Your task to perform on an android device: make emails show in primary in the gmail app Image 0: 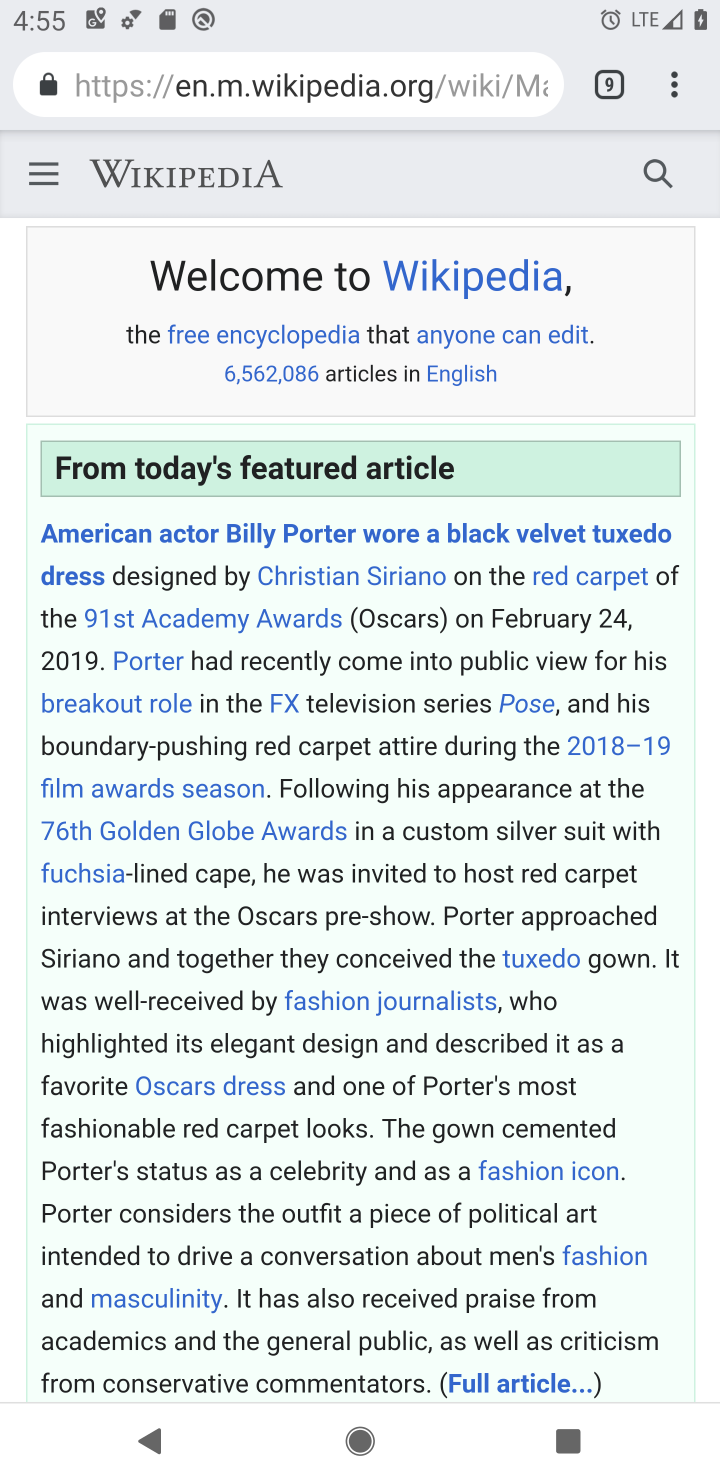
Step 0: press home button
Your task to perform on an android device: make emails show in primary in the gmail app Image 1: 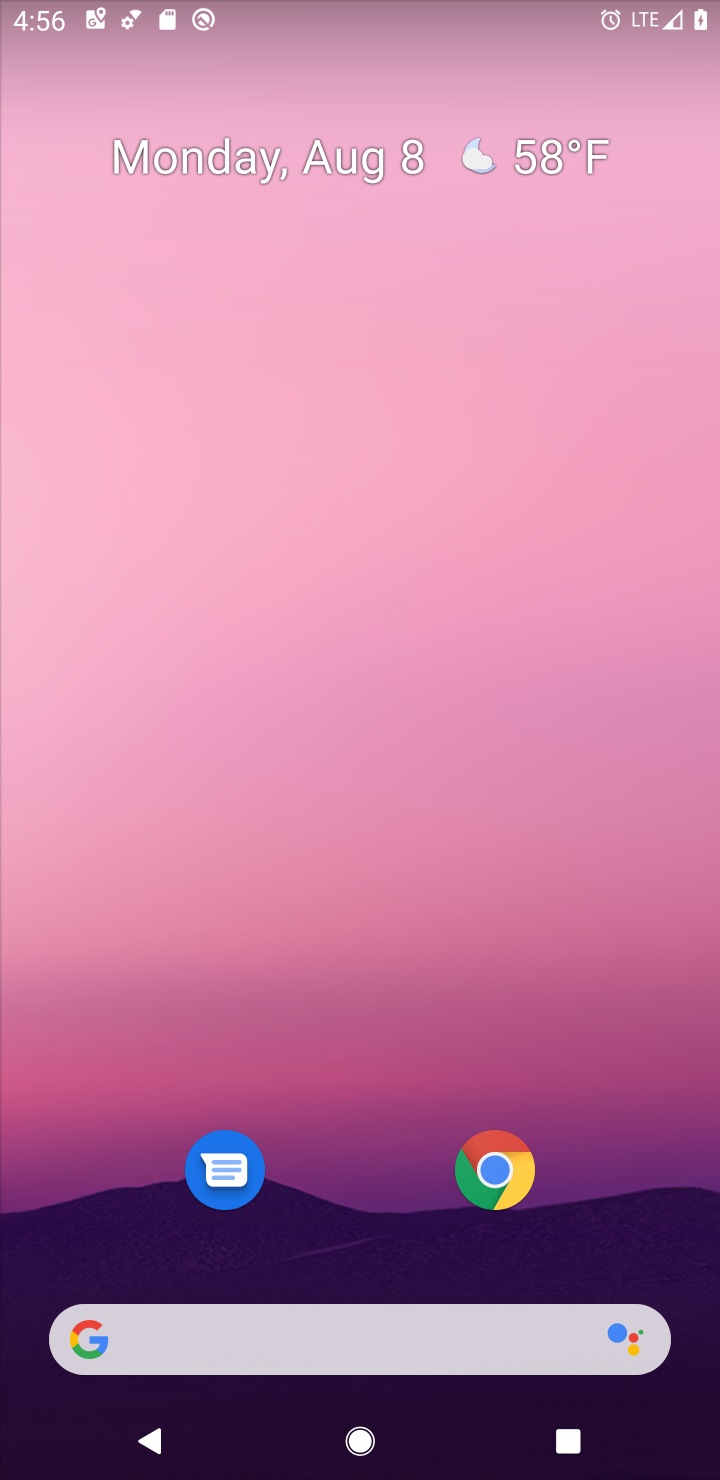
Step 1: drag from (366, 702) to (366, 361)
Your task to perform on an android device: make emails show in primary in the gmail app Image 2: 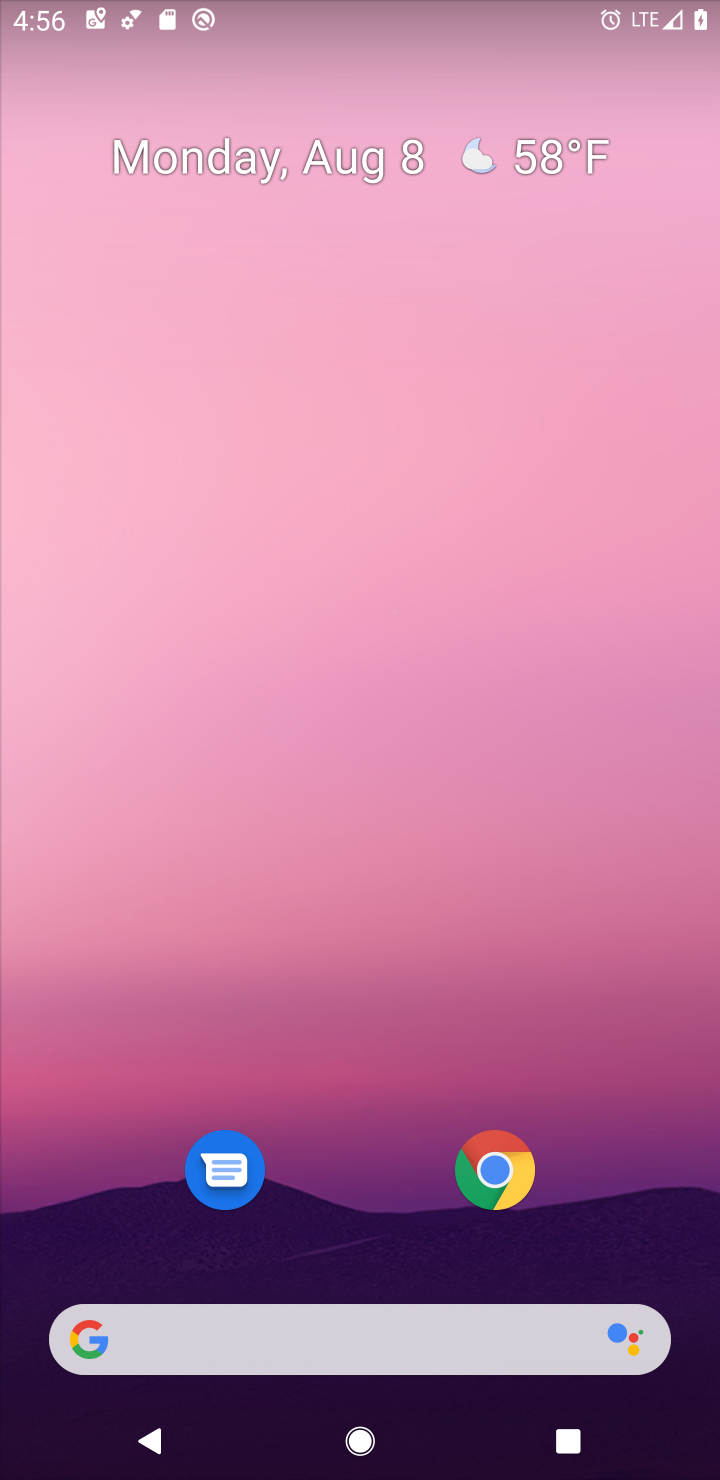
Step 2: drag from (334, 1142) to (383, 187)
Your task to perform on an android device: make emails show in primary in the gmail app Image 3: 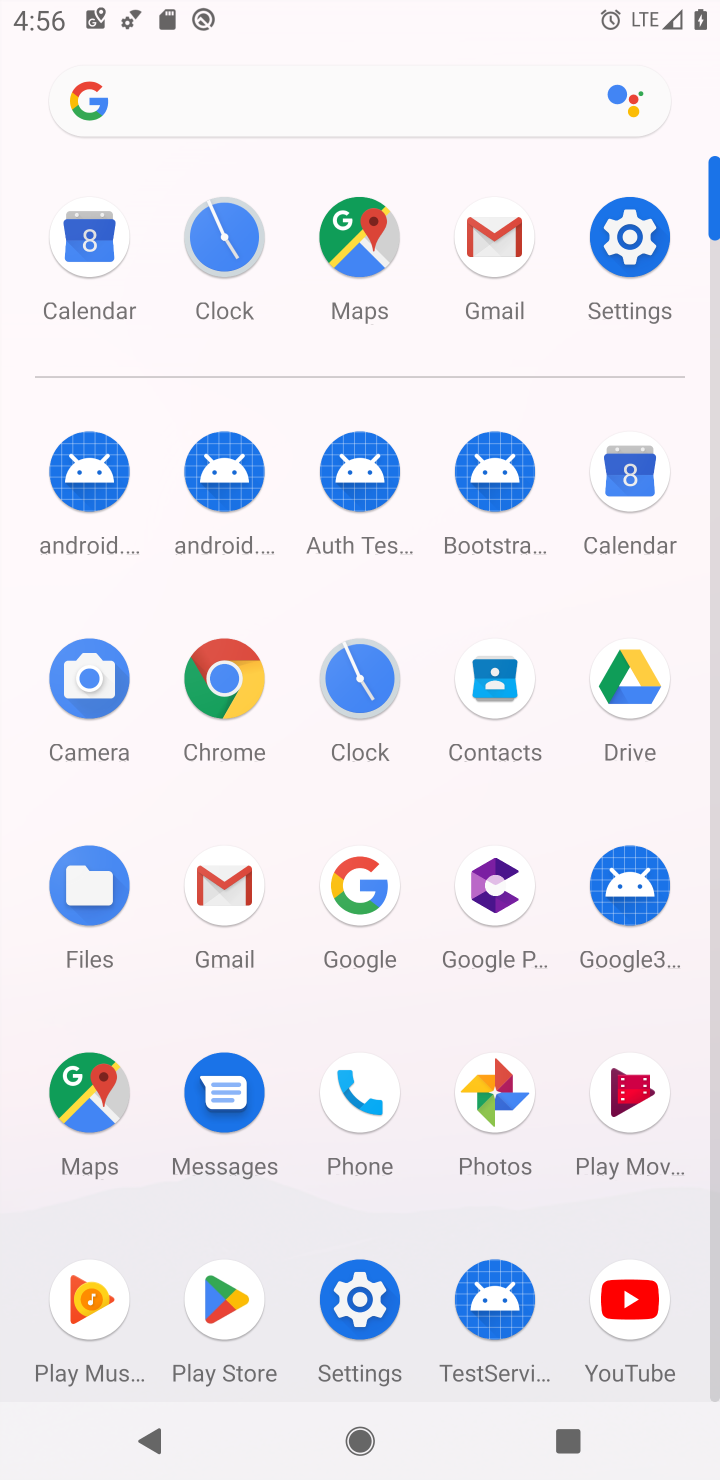
Step 3: click (467, 248)
Your task to perform on an android device: make emails show in primary in the gmail app Image 4: 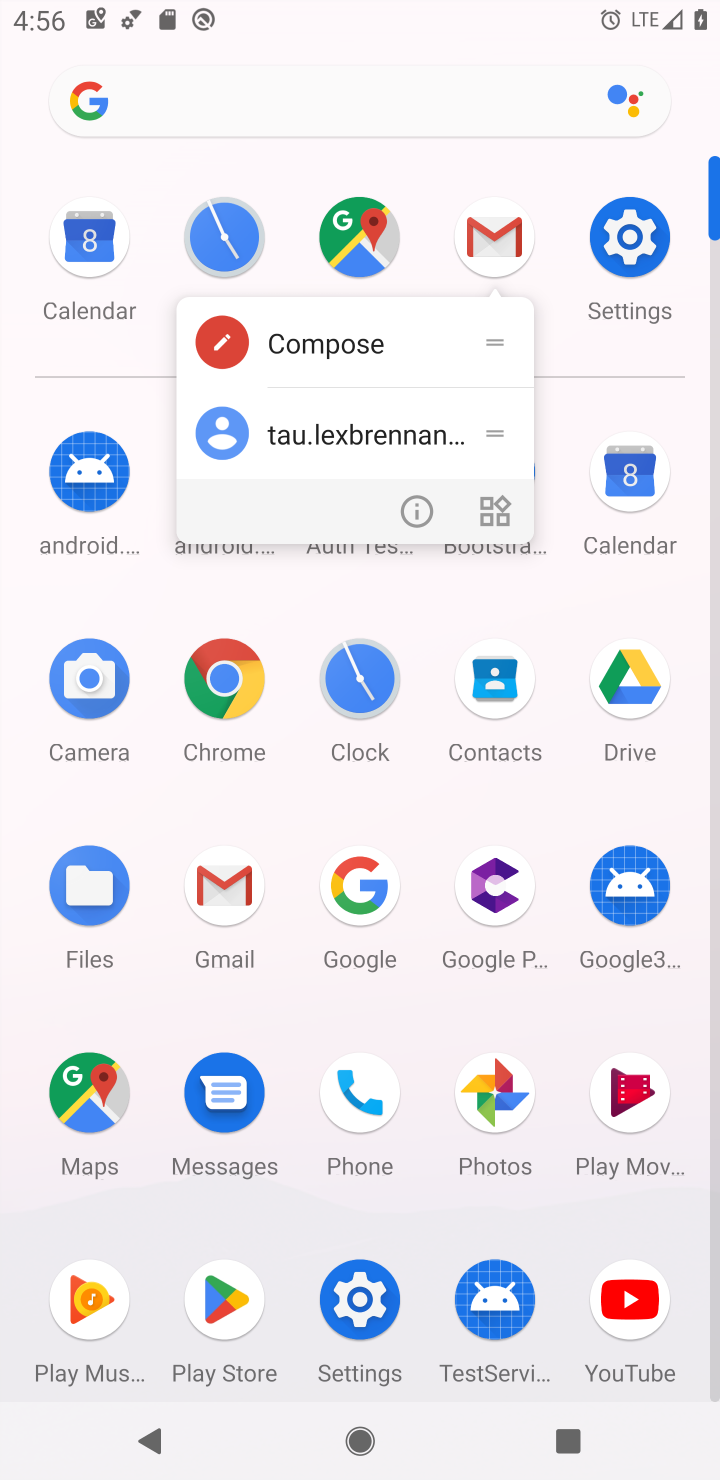
Step 4: click (480, 257)
Your task to perform on an android device: make emails show in primary in the gmail app Image 5: 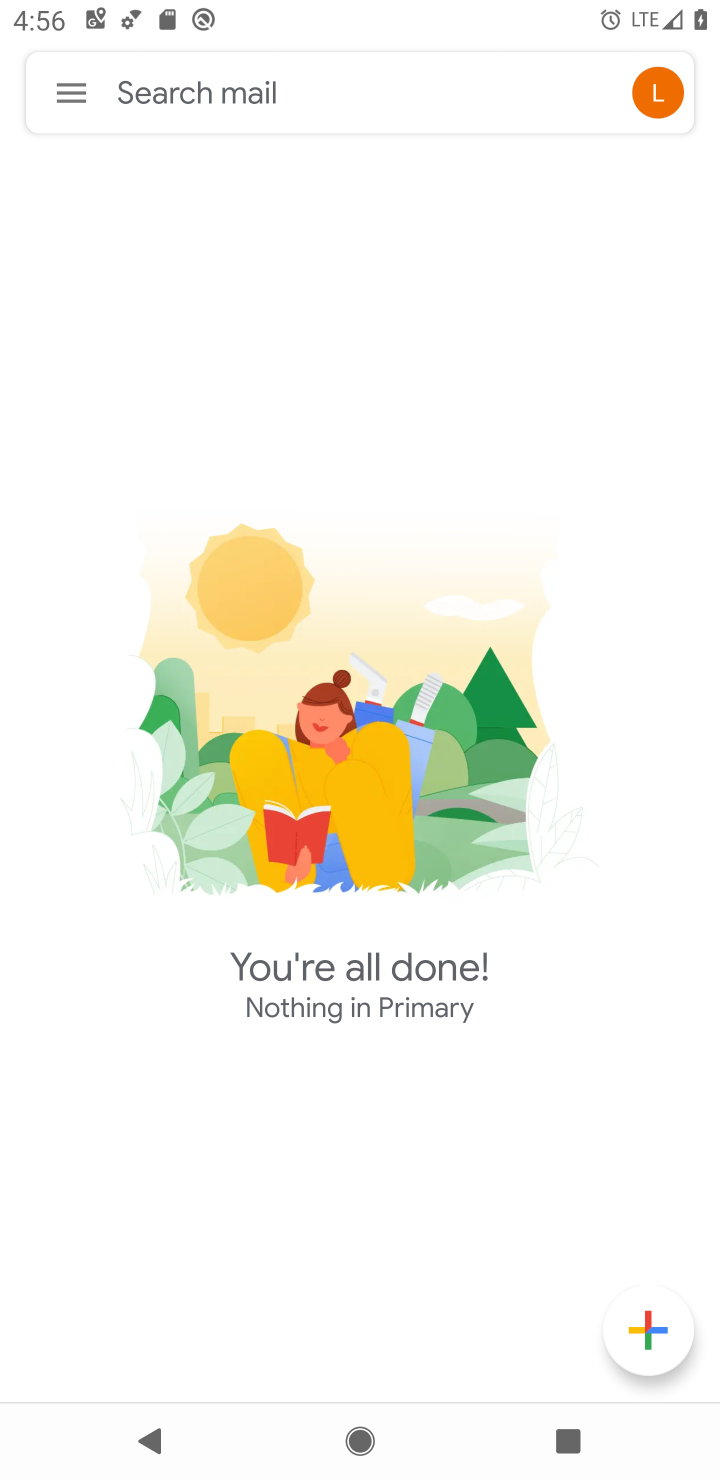
Step 5: click (64, 76)
Your task to perform on an android device: make emails show in primary in the gmail app Image 6: 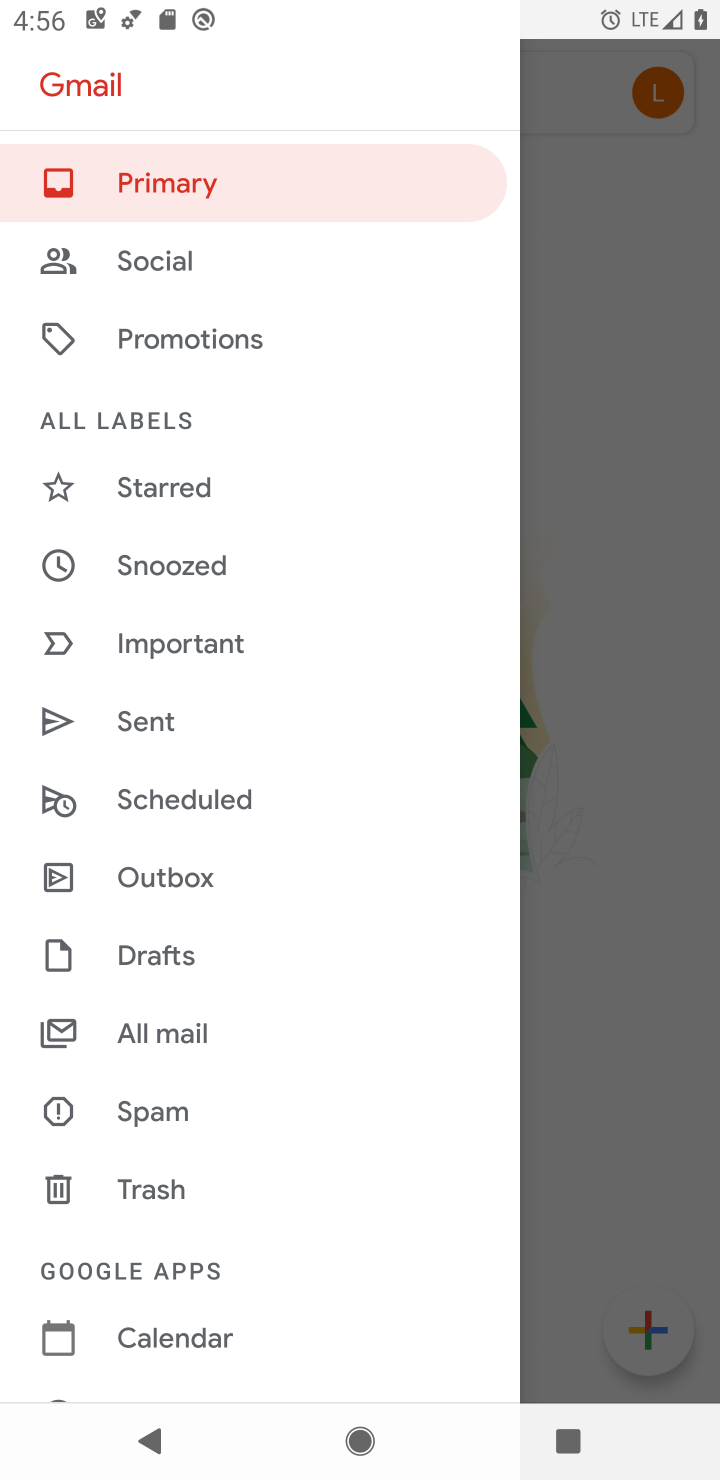
Step 6: drag from (208, 1283) to (252, 662)
Your task to perform on an android device: make emails show in primary in the gmail app Image 7: 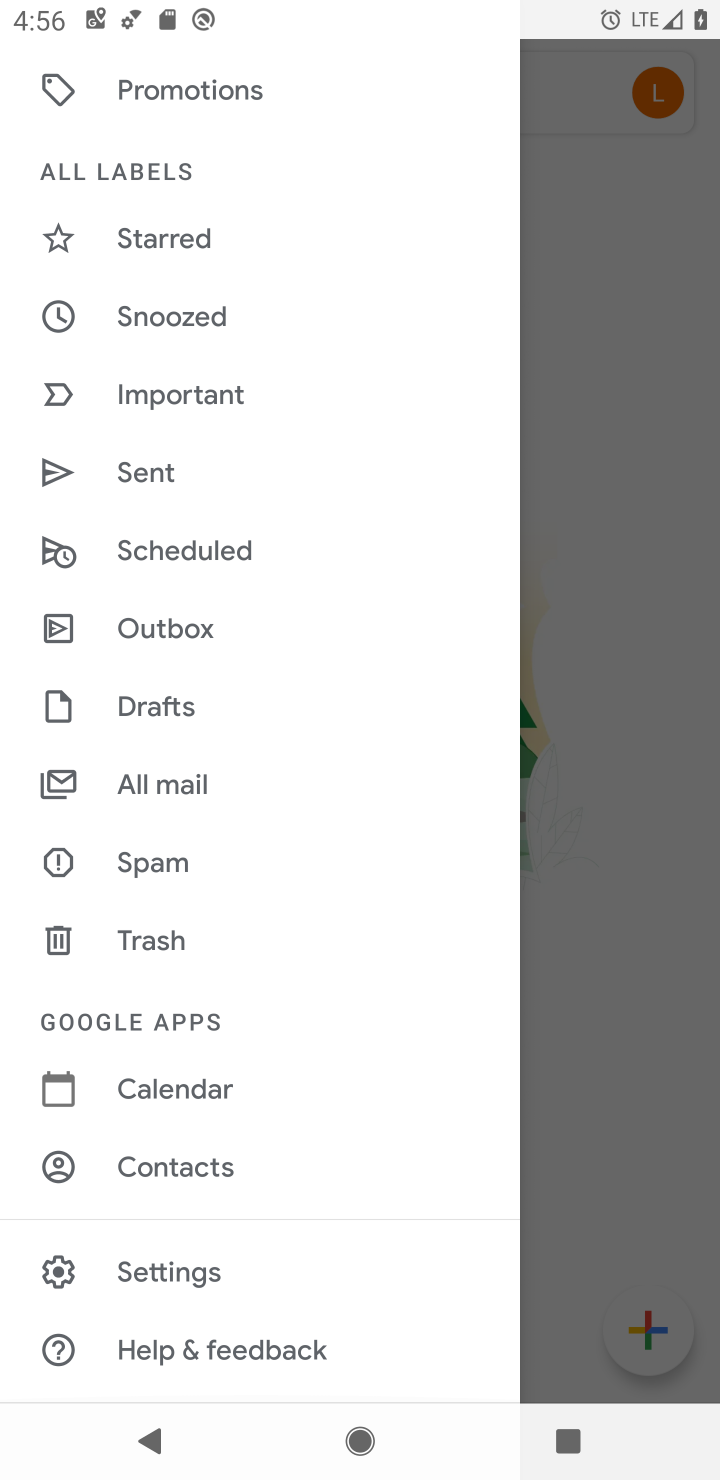
Step 7: click (227, 1240)
Your task to perform on an android device: make emails show in primary in the gmail app Image 8: 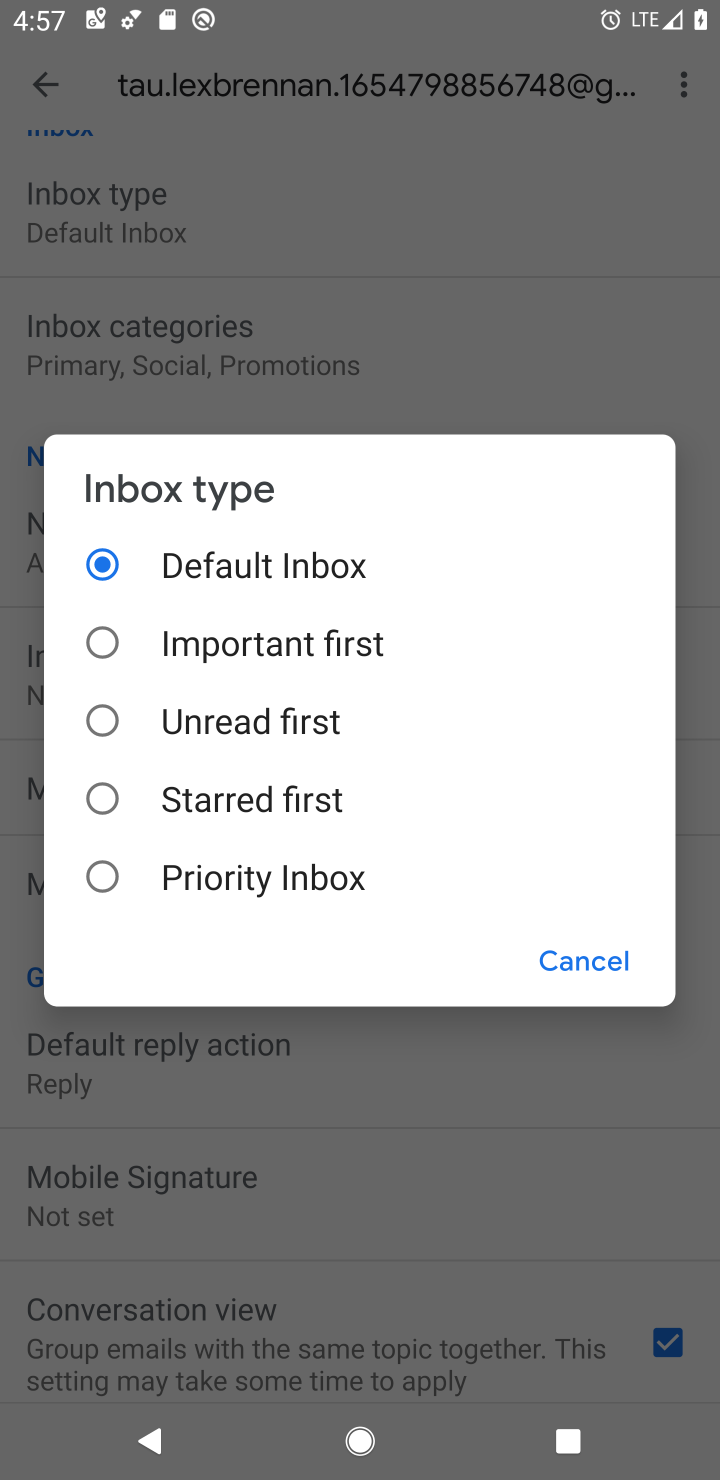
Step 8: task complete